Your task to perform on an android device: turn on the 24-hour format for clock Image 0: 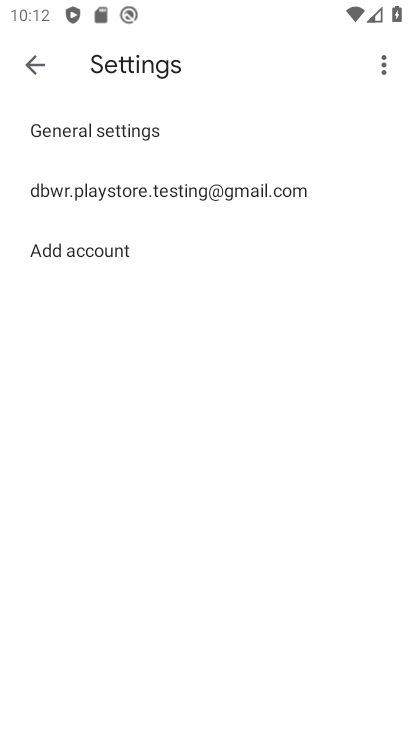
Step 0: press home button
Your task to perform on an android device: turn on the 24-hour format for clock Image 1: 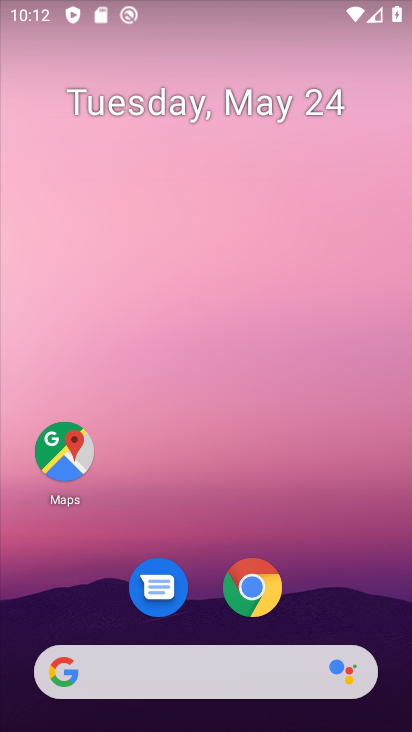
Step 1: drag from (222, 630) to (139, 69)
Your task to perform on an android device: turn on the 24-hour format for clock Image 2: 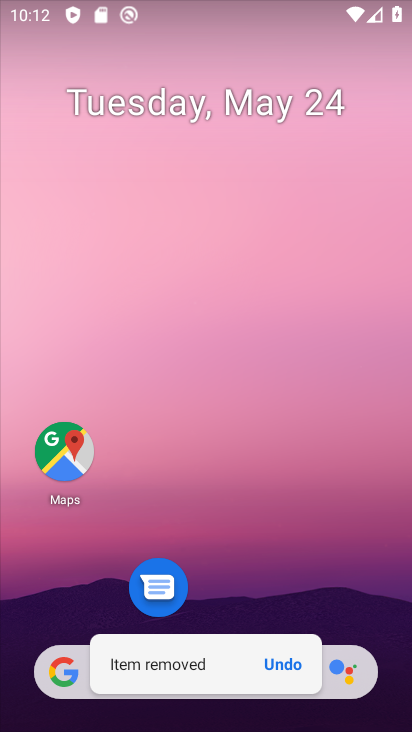
Step 2: drag from (254, 599) to (281, 10)
Your task to perform on an android device: turn on the 24-hour format for clock Image 3: 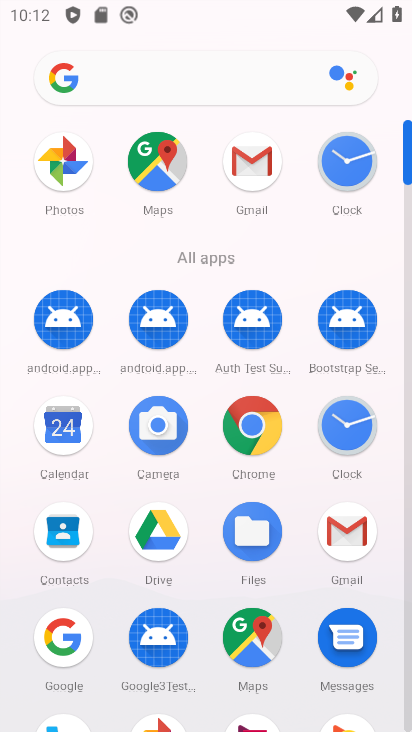
Step 3: click (337, 439)
Your task to perform on an android device: turn on the 24-hour format for clock Image 4: 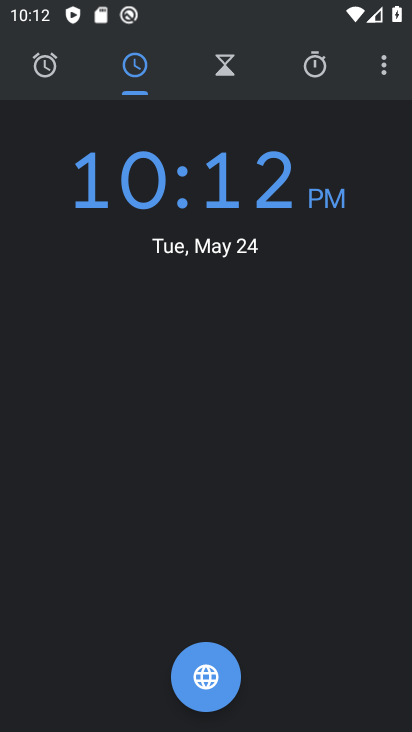
Step 4: click (379, 71)
Your task to perform on an android device: turn on the 24-hour format for clock Image 5: 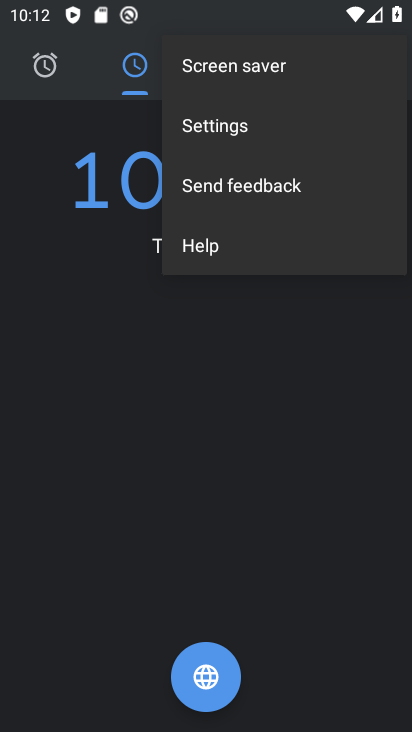
Step 5: click (235, 118)
Your task to perform on an android device: turn on the 24-hour format for clock Image 6: 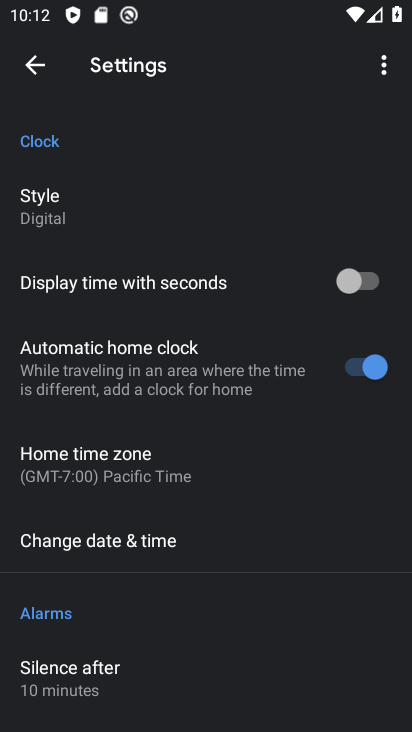
Step 6: click (85, 543)
Your task to perform on an android device: turn on the 24-hour format for clock Image 7: 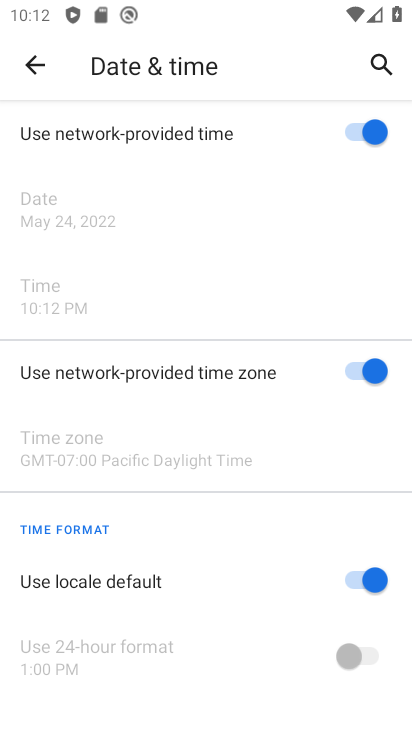
Step 7: click (378, 578)
Your task to perform on an android device: turn on the 24-hour format for clock Image 8: 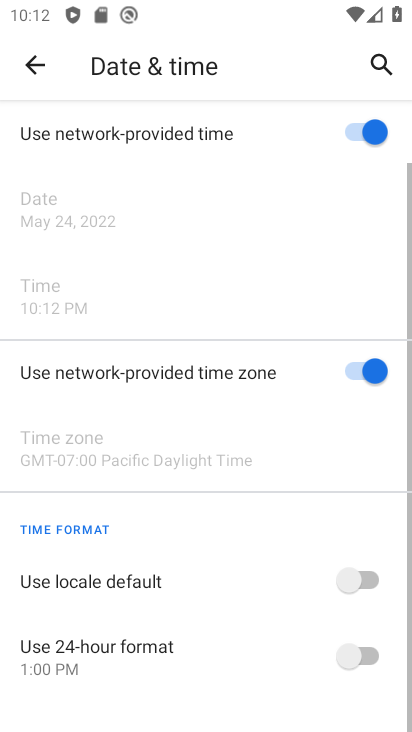
Step 8: click (358, 651)
Your task to perform on an android device: turn on the 24-hour format for clock Image 9: 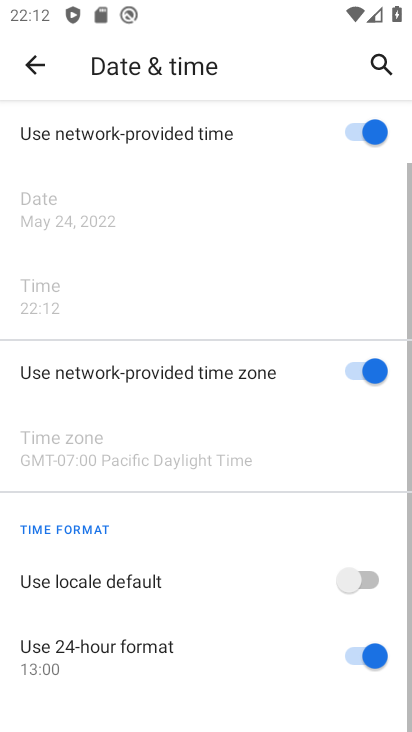
Step 9: task complete